Your task to perform on an android device: open chrome privacy settings Image 0: 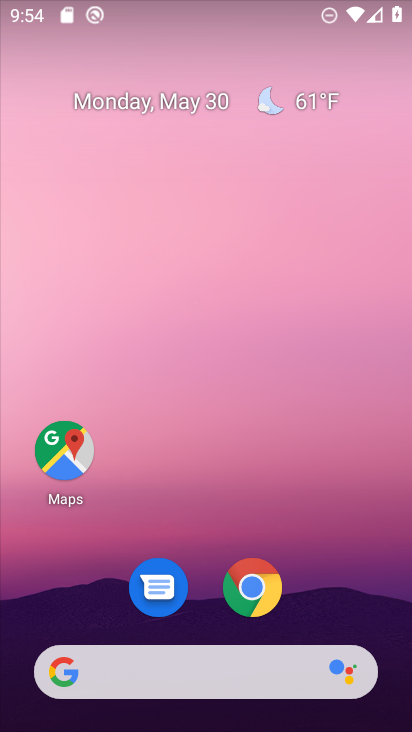
Step 0: click (261, 597)
Your task to perform on an android device: open chrome privacy settings Image 1: 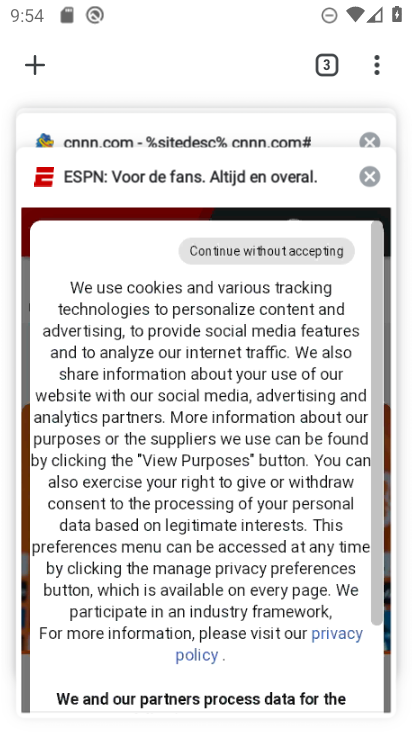
Step 1: click (303, 314)
Your task to perform on an android device: open chrome privacy settings Image 2: 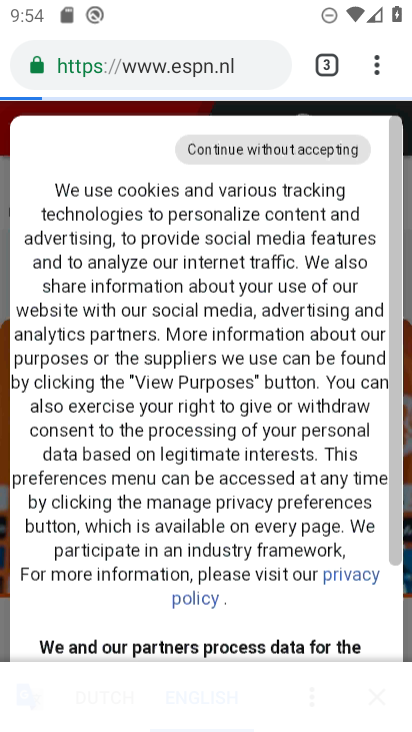
Step 2: click (380, 68)
Your task to perform on an android device: open chrome privacy settings Image 3: 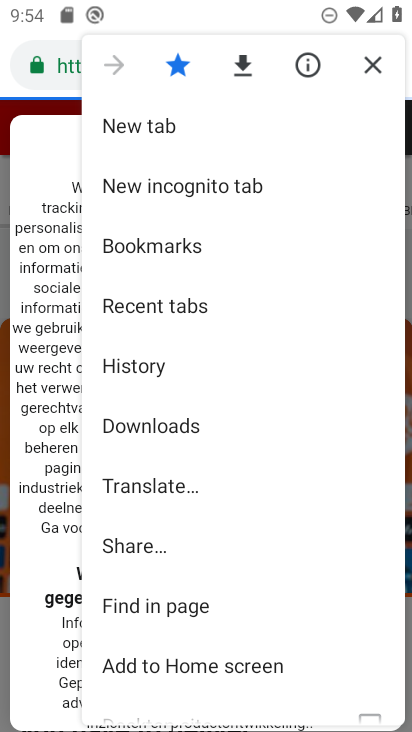
Step 3: drag from (234, 638) to (233, 215)
Your task to perform on an android device: open chrome privacy settings Image 4: 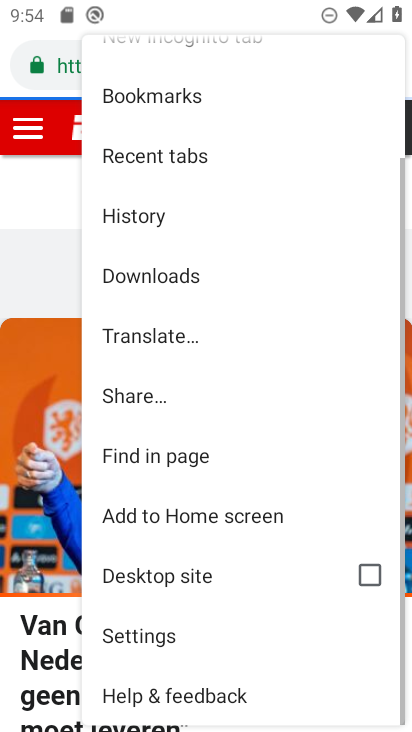
Step 4: click (143, 634)
Your task to perform on an android device: open chrome privacy settings Image 5: 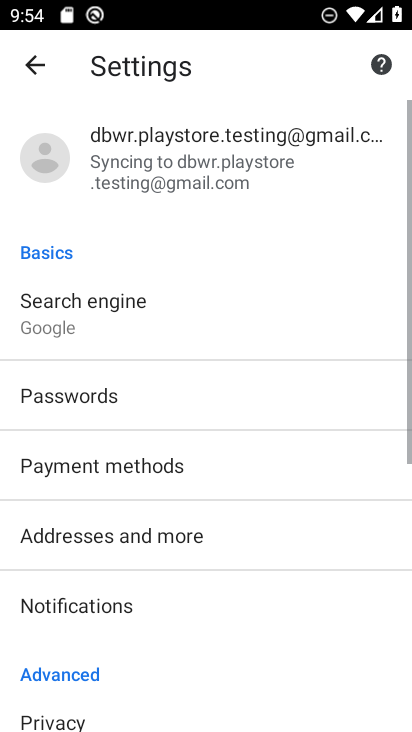
Step 5: drag from (156, 618) to (140, 464)
Your task to perform on an android device: open chrome privacy settings Image 6: 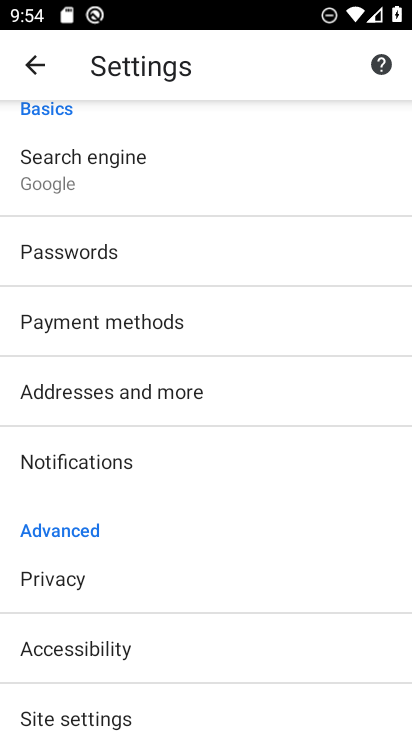
Step 6: click (51, 596)
Your task to perform on an android device: open chrome privacy settings Image 7: 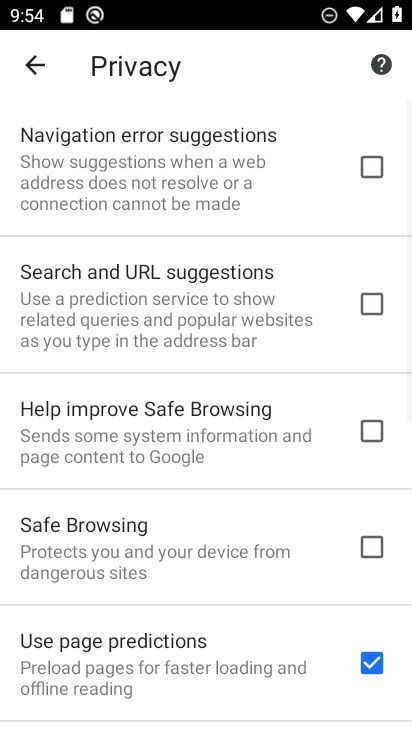
Step 7: task complete